Your task to perform on an android device: open wifi settings Image 0: 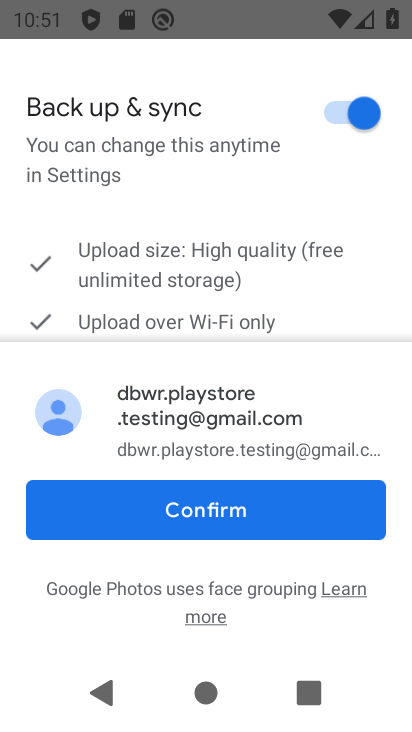
Step 0: press home button
Your task to perform on an android device: open wifi settings Image 1: 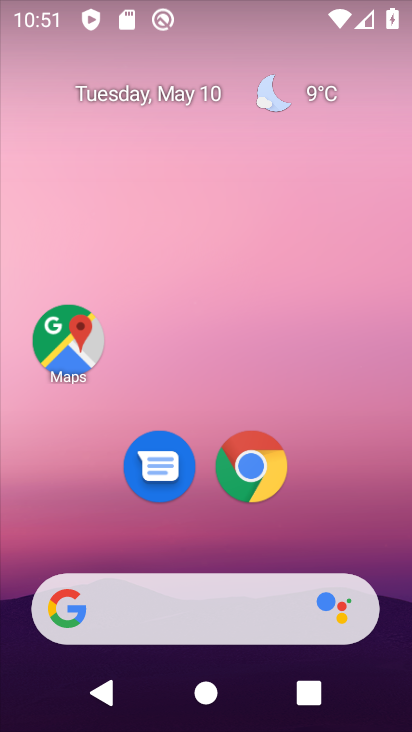
Step 1: drag from (195, 545) to (206, 1)
Your task to perform on an android device: open wifi settings Image 2: 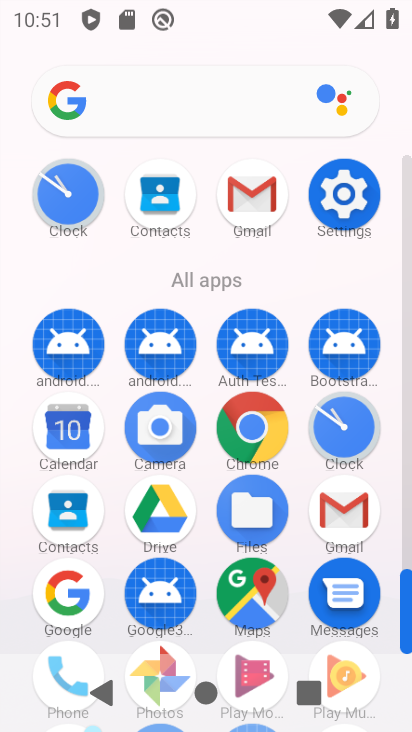
Step 2: click (346, 204)
Your task to perform on an android device: open wifi settings Image 3: 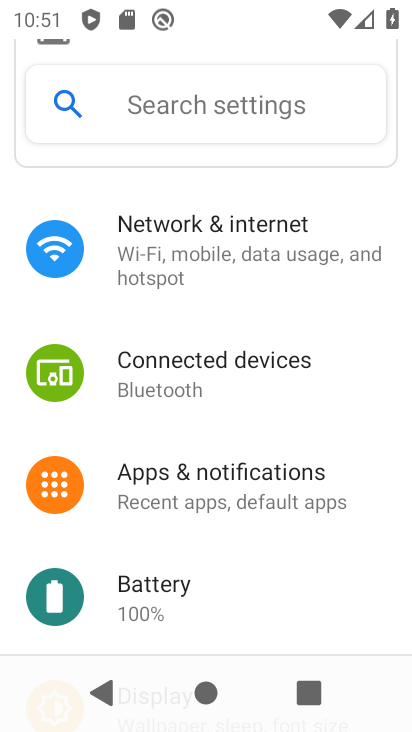
Step 3: click (271, 262)
Your task to perform on an android device: open wifi settings Image 4: 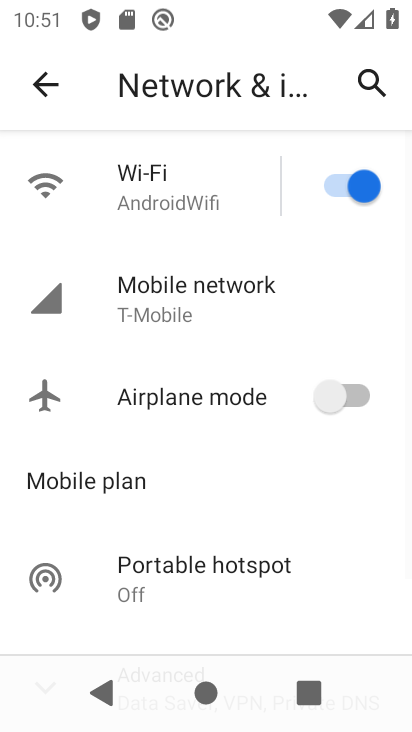
Step 4: click (65, 199)
Your task to perform on an android device: open wifi settings Image 5: 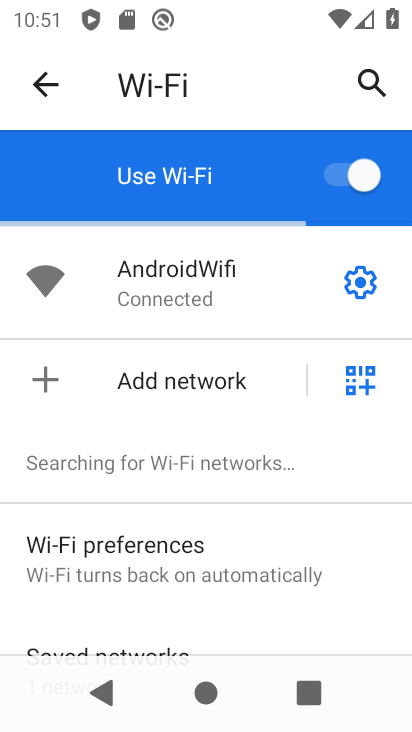
Step 5: task complete